Your task to perform on an android device: Go to Google Image 0: 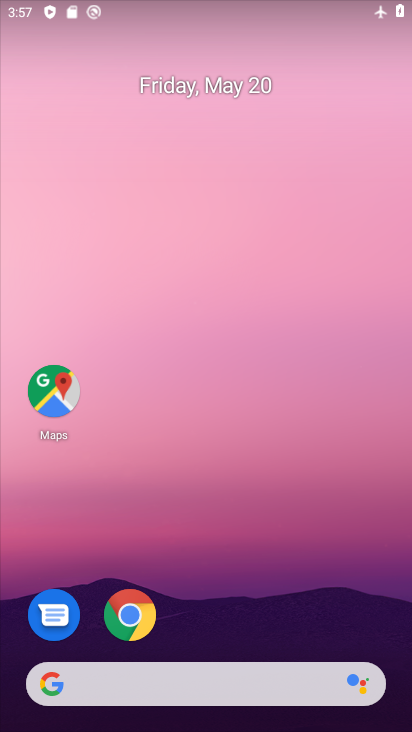
Step 0: drag from (260, 625) to (287, 288)
Your task to perform on an android device: Go to Google Image 1: 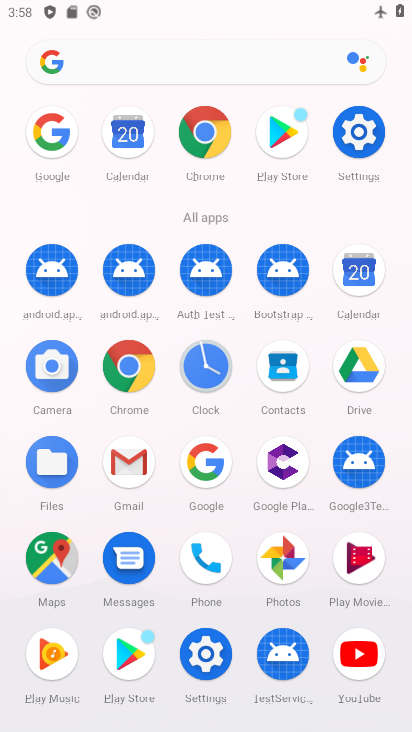
Step 1: click (210, 473)
Your task to perform on an android device: Go to Google Image 2: 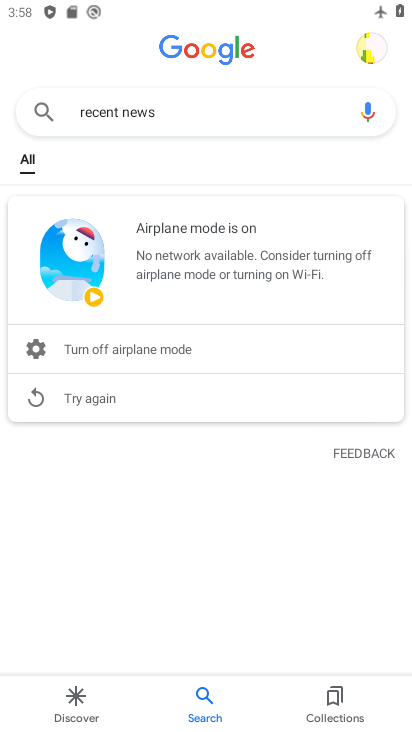
Step 2: task complete